Your task to perform on an android device: turn notification dots off Image 0: 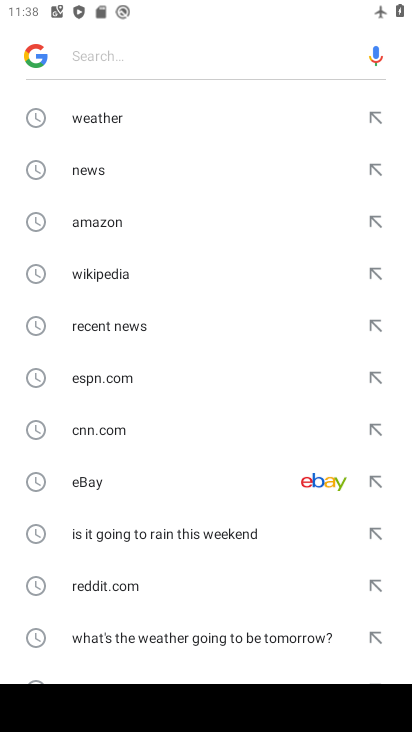
Step 0: press home button
Your task to perform on an android device: turn notification dots off Image 1: 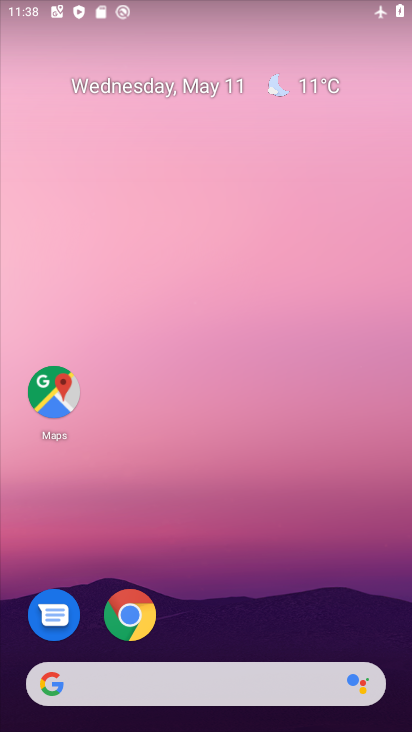
Step 1: drag from (272, 580) to (323, 158)
Your task to perform on an android device: turn notification dots off Image 2: 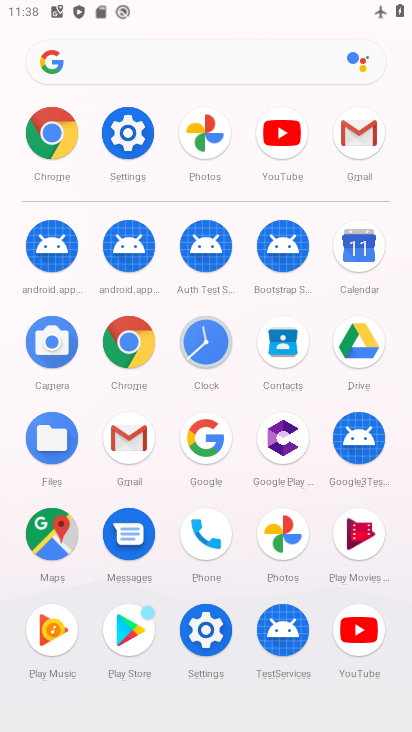
Step 2: click (211, 625)
Your task to perform on an android device: turn notification dots off Image 3: 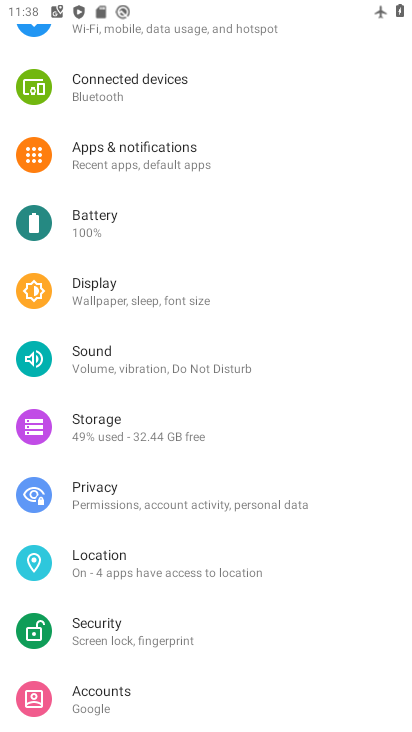
Step 3: click (219, 161)
Your task to perform on an android device: turn notification dots off Image 4: 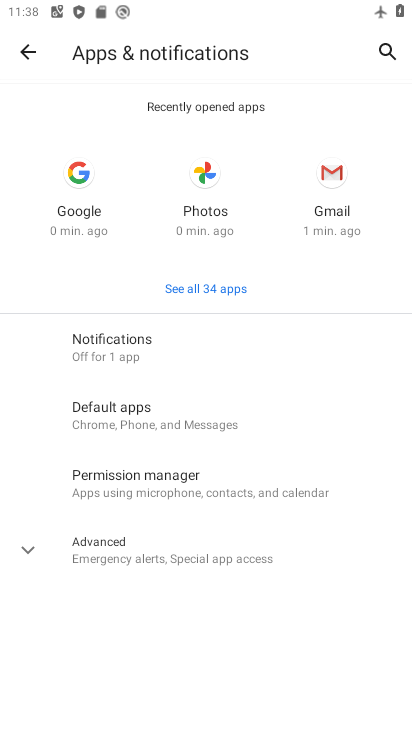
Step 4: click (153, 343)
Your task to perform on an android device: turn notification dots off Image 5: 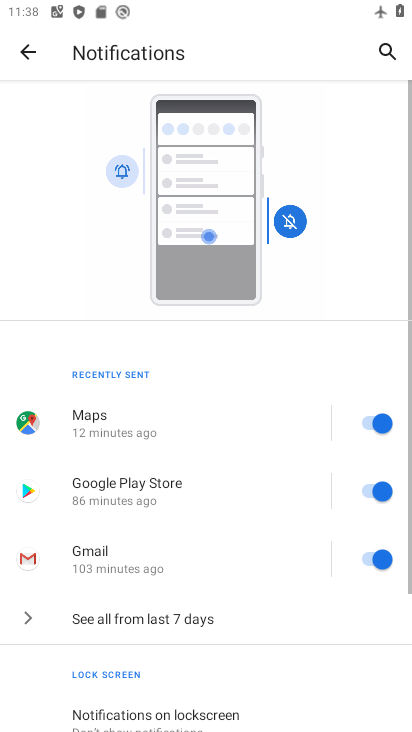
Step 5: drag from (216, 466) to (274, 133)
Your task to perform on an android device: turn notification dots off Image 6: 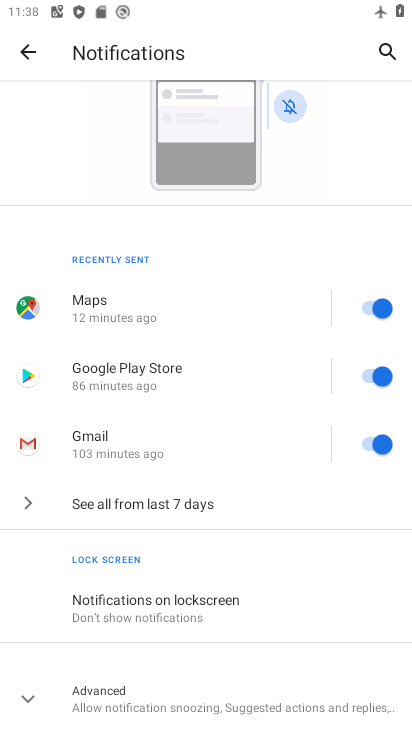
Step 6: click (149, 702)
Your task to perform on an android device: turn notification dots off Image 7: 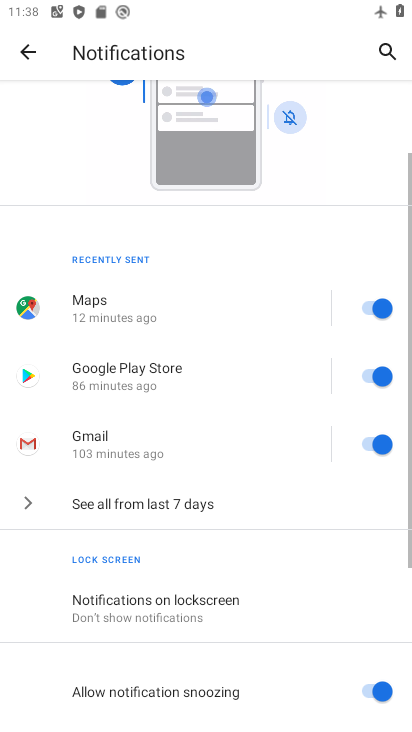
Step 7: drag from (178, 666) to (274, 402)
Your task to perform on an android device: turn notification dots off Image 8: 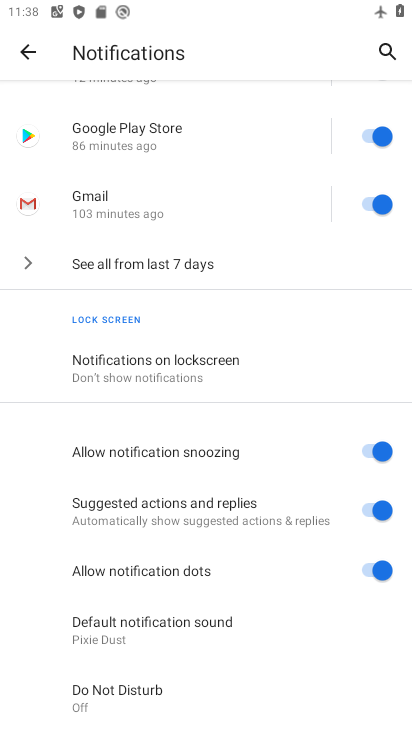
Step 8: click (364, 572)
Your task to perform on an android device: turn notification dots off Image 9: 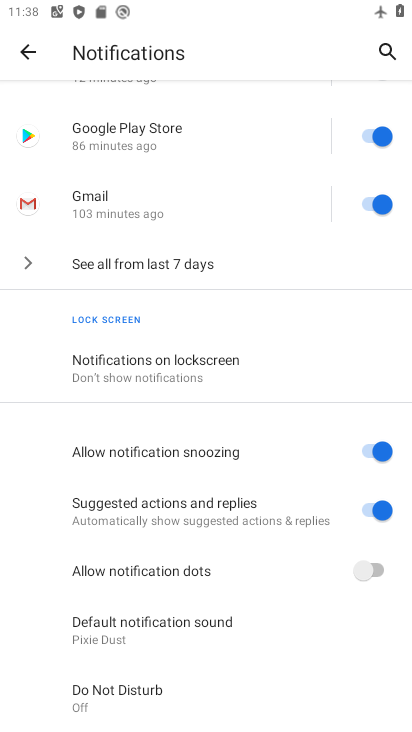
Step 9: task complete